Your task to perform on an android device: open chrome and create a bookmark for the current page Image 0: 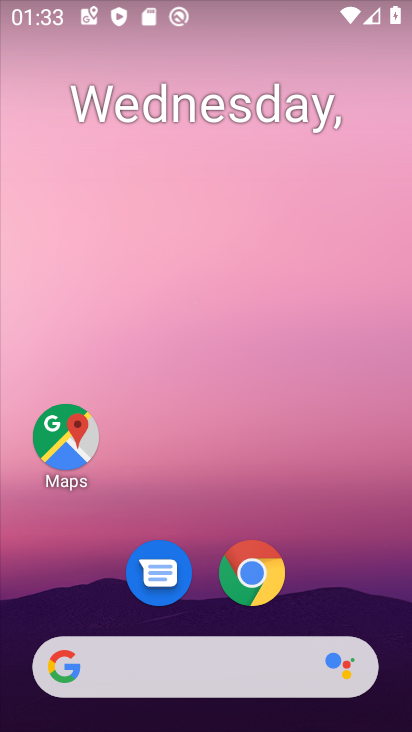
Step 0: click (249, 575)
Your task to perform on an android device: open chrome and create a bookmark for the current page Image 1: 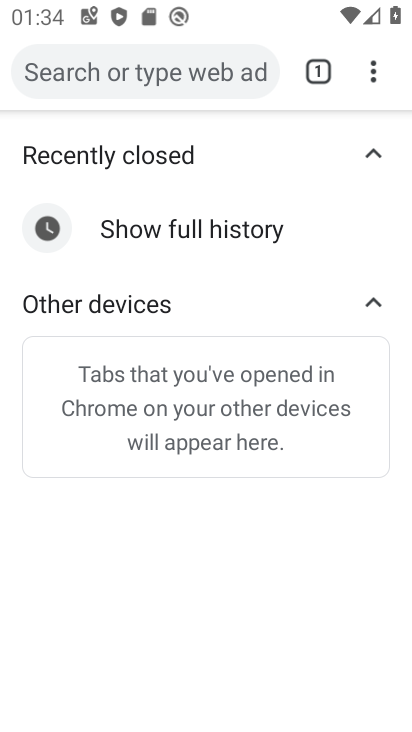
Step 1: click (371, 75)
Your task to perform on an android device: open chrome and create a bookmark for the current page Image 2: 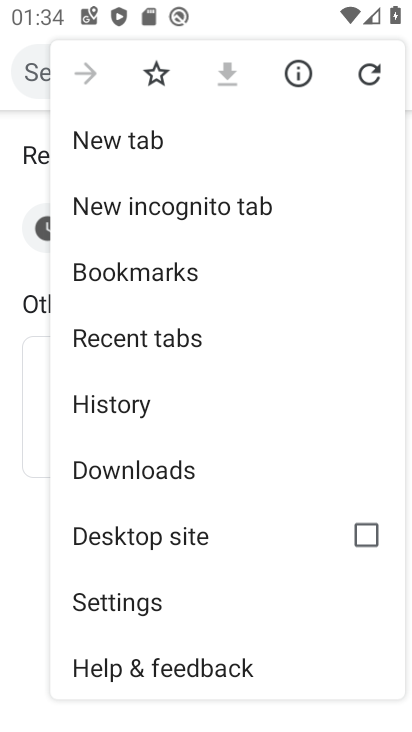
Step 2: click (152, 70)
Your task to perform on an android device: open chrome and create a bookmark for the current page Image 3: 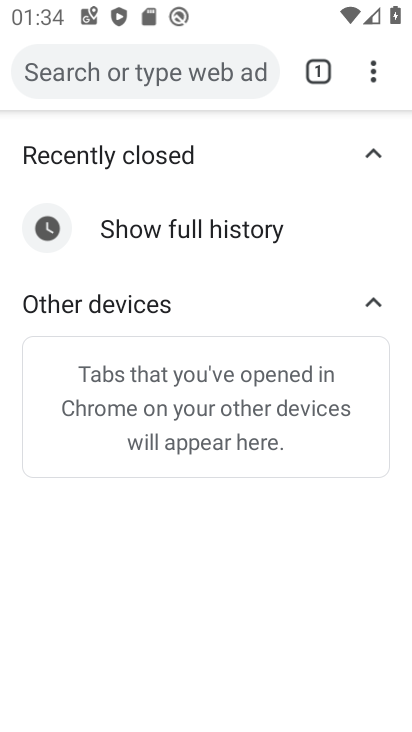
Step 3: task complete